Your task to perform on an android device: uninstall "Google Keep" Image 0: 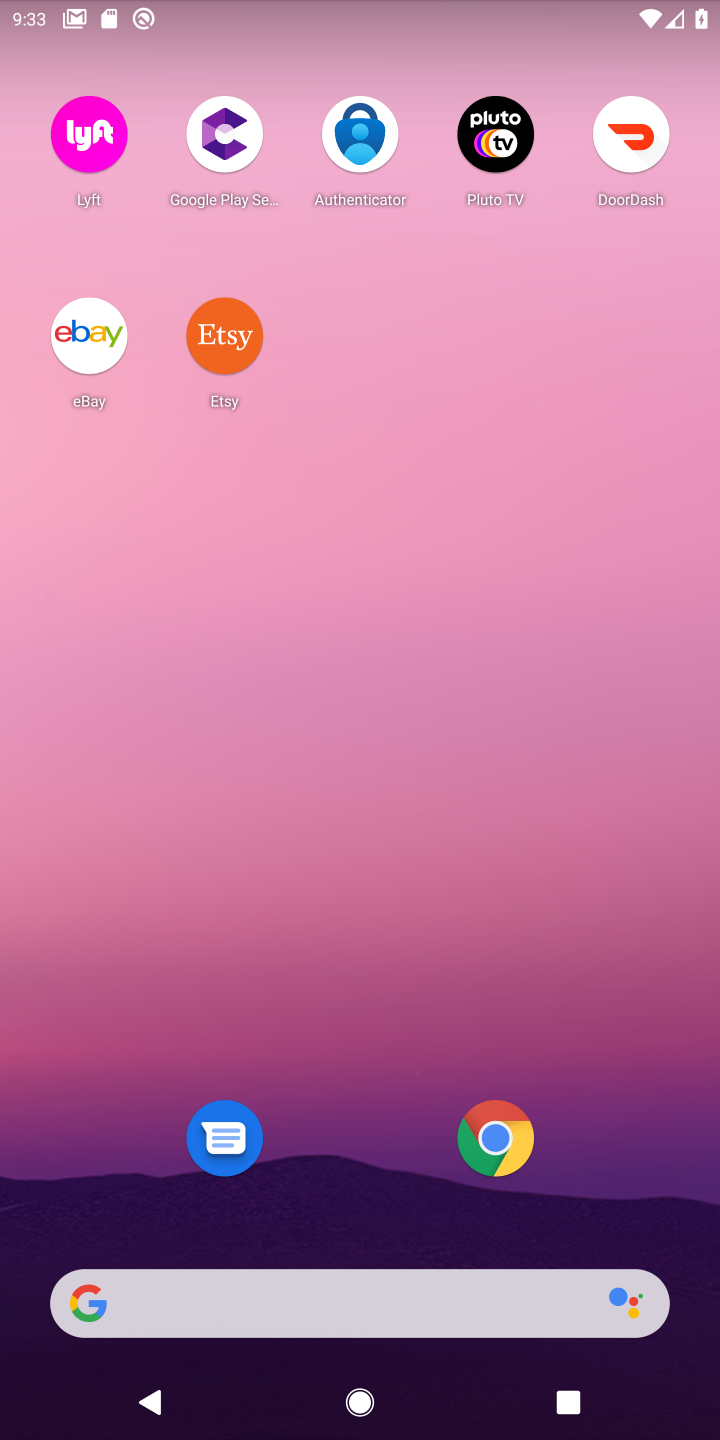
Step 0: drag from (338, 1159) to (362, 1)
Your task to perform on an android device: uninstall "Google Keep" Image 1: 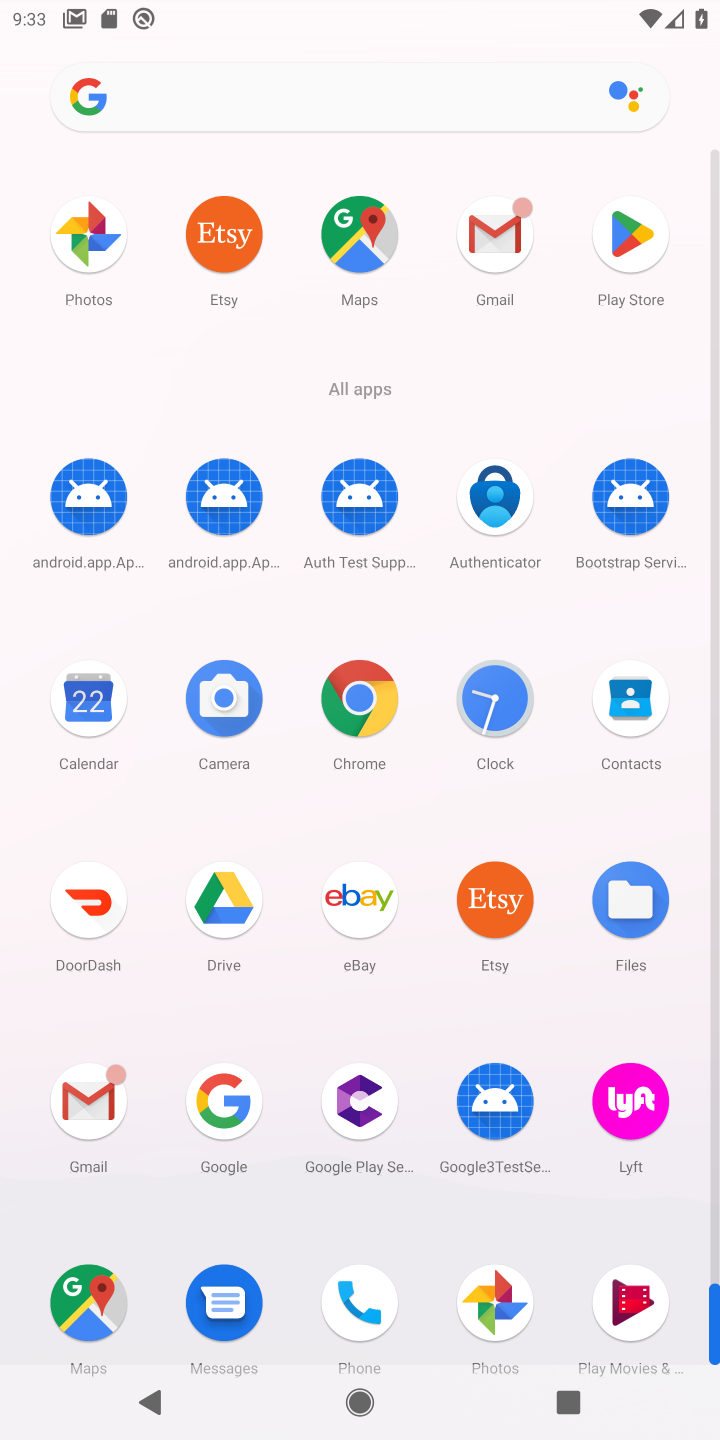
Step 1: click (628, 219)
Your task to perform on an android device: uninstall "Google Keep" Image 2: 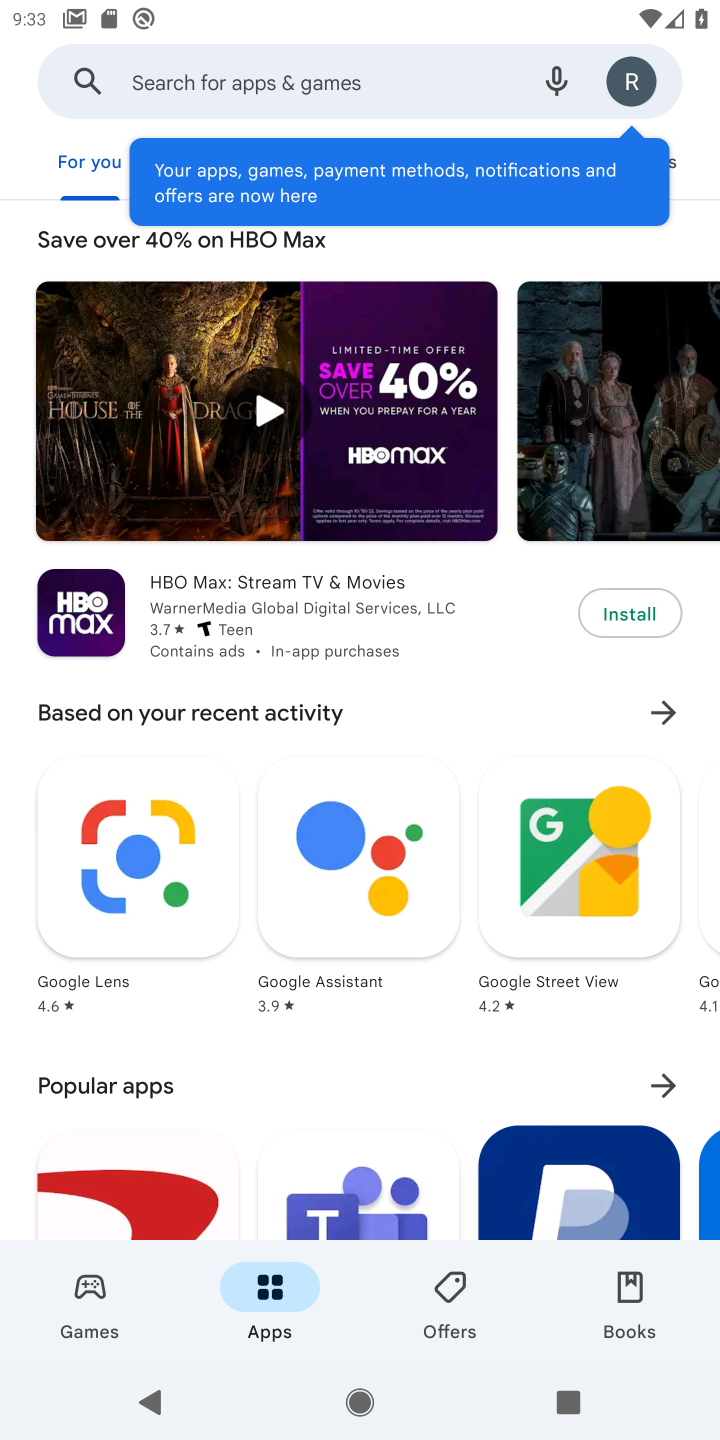
Step 2: click (343, 99)
Your task to perform on an android device: uninstall "Google Keep" Image 3: 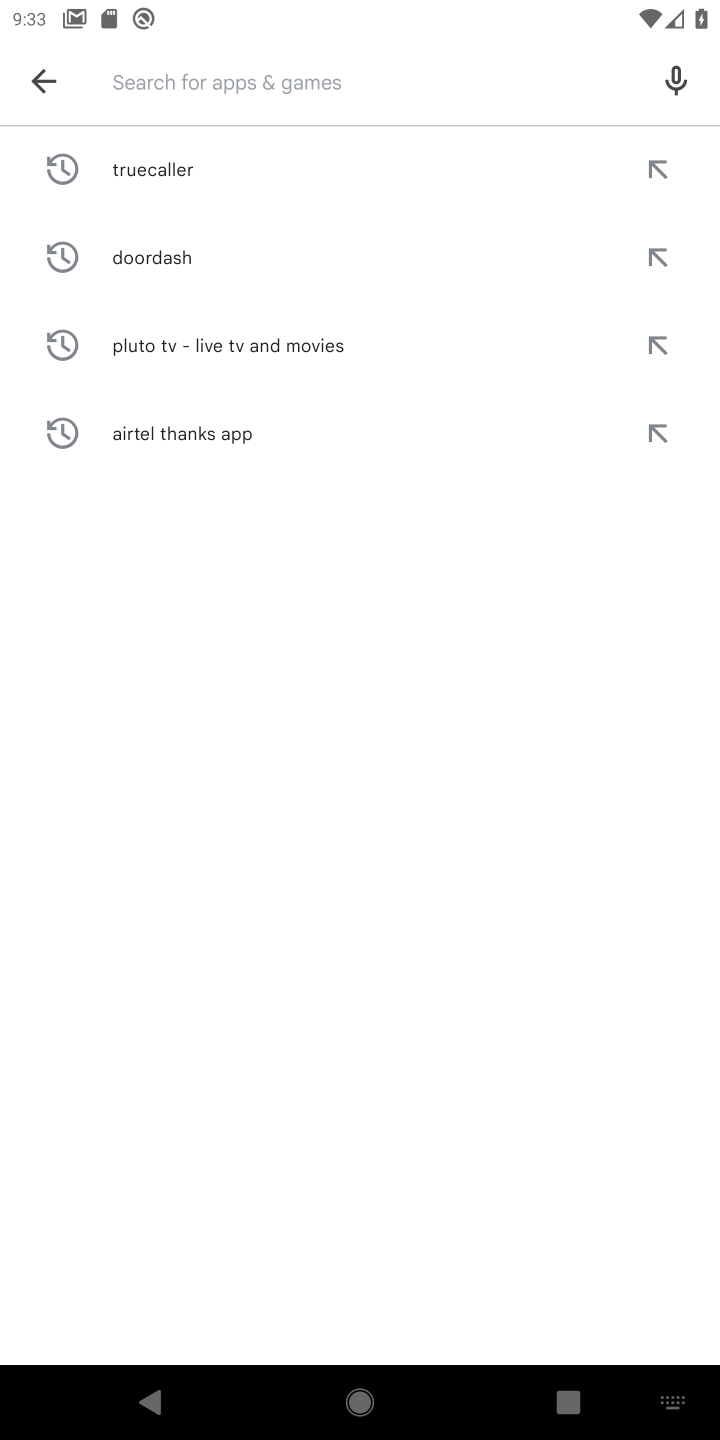
Step 3: type "google keep"
Your task to perform on an android device: uninstall "Google Keep" Image 4: 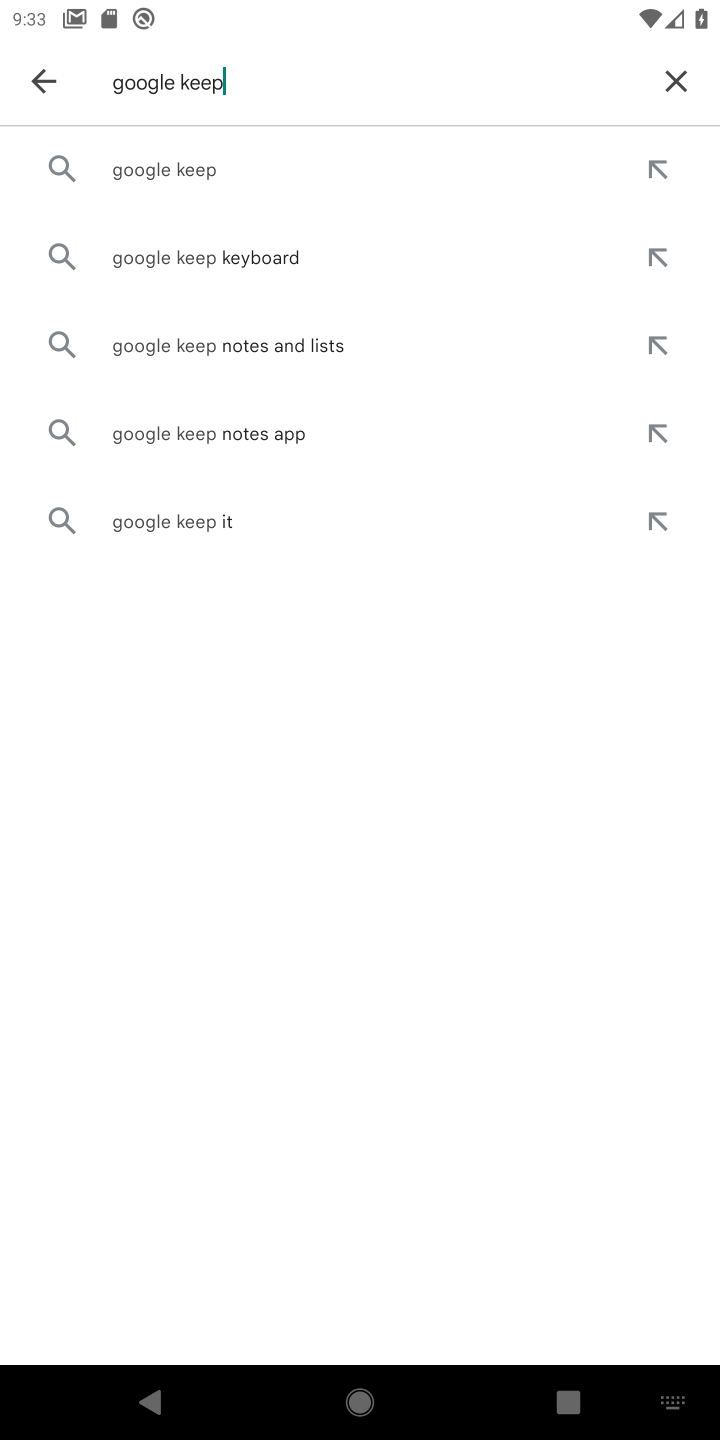
Step 4: click (160, 176)
Your task to perform on an android device: uninstall "Google Keep" Image 5: 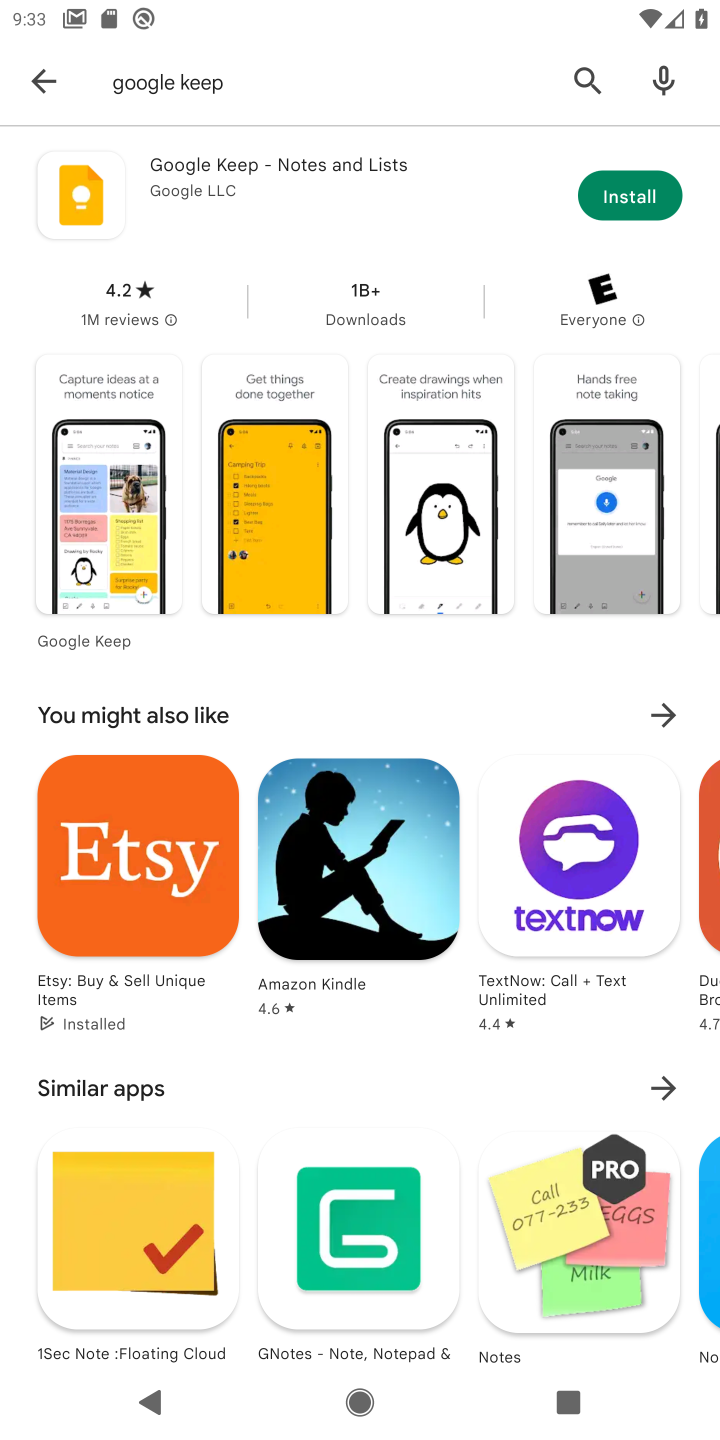
Step 5: task complete